Your task to perform on an android device: Open Chrome and go to settings Image 0: 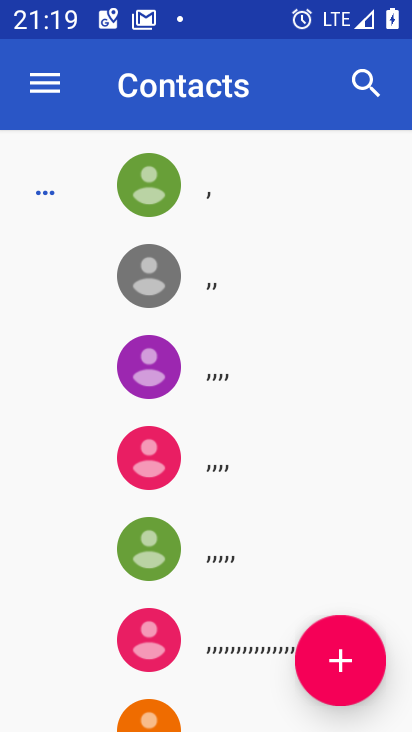
Step 0: click (381, 0)
Your task to perform on an android device: Open Chrome and go to settings Image 1: 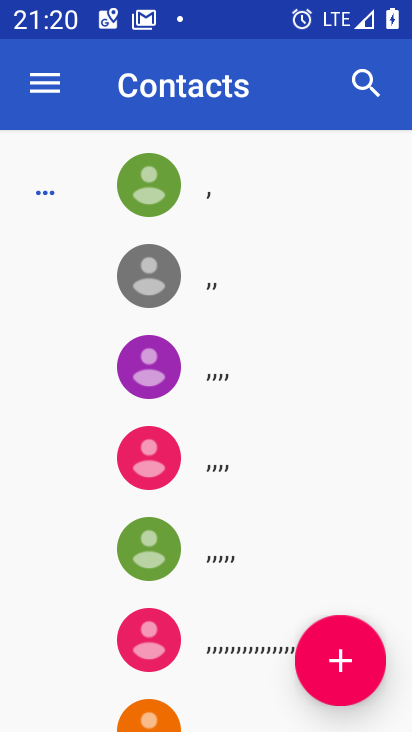
Step 1: press home button
Your task to perform on an android device: Open Chrome and go to settings Image 2: 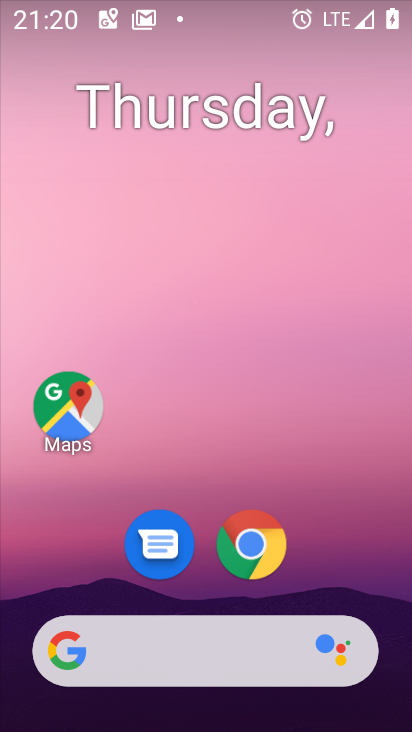
Step 2: click (253, 547)
Your task to perform on an android device: Open Chrome and go to settings Image 3: 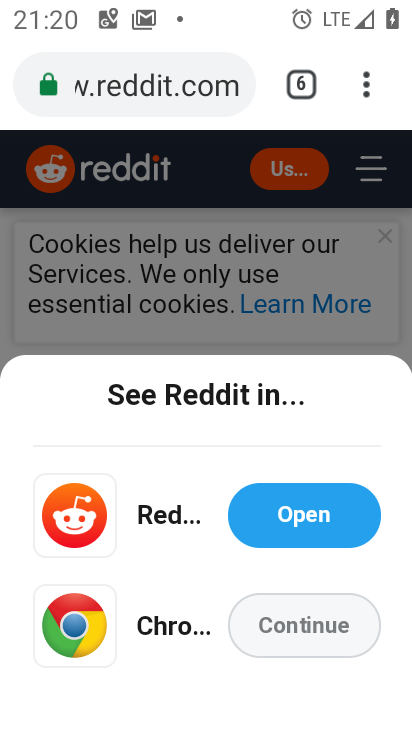
Step 3: click (382, 81)
Your task to perform on an android device: Open Chrome and go to settings Image 4: 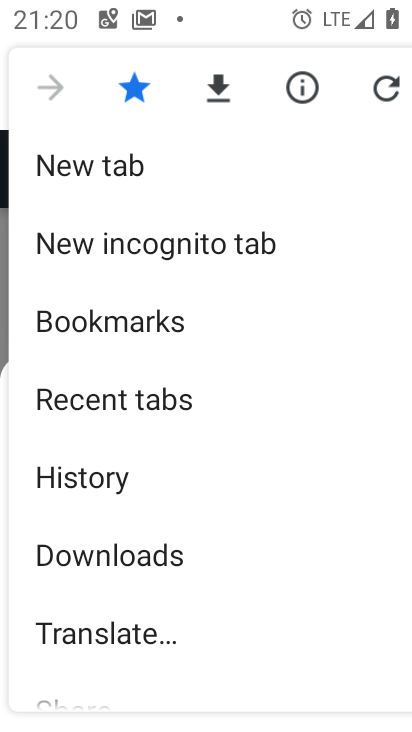
Step 4: drag from (100, 604) to (195, 177)
Your task to perform on an android device: Open Chrome and go to settings Image 5: 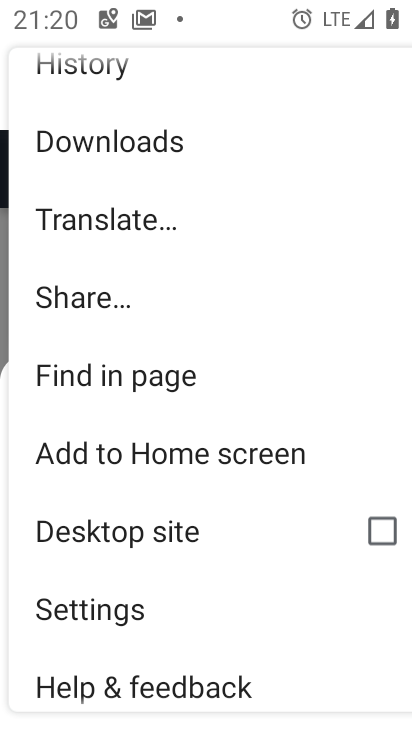
Step 5: click (86, 614)
Your task to perform on an android device: Open Chrome and go to settings Image 6: 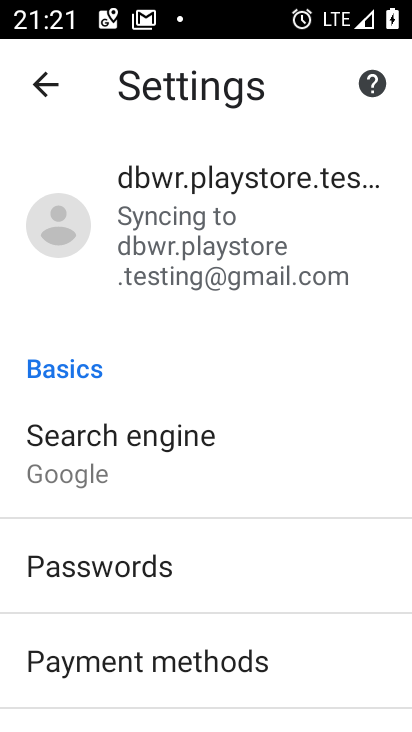
Step 6: task complete